Your task to perform on an android device: turn on airplane mode Image 0: 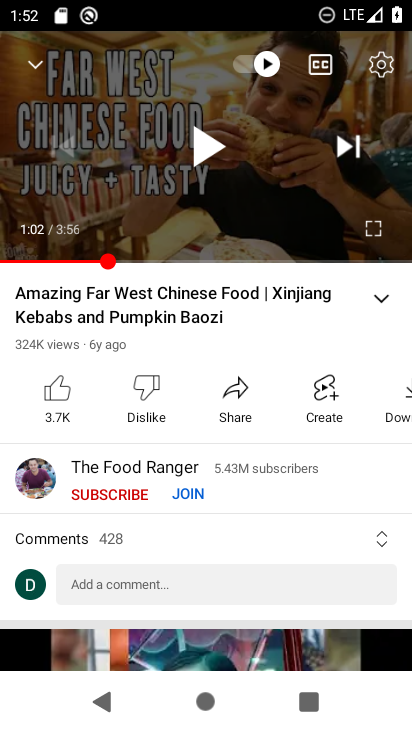
Step 0: press home button
Your task to perform on an android device: turn on airplane mode Image 1: 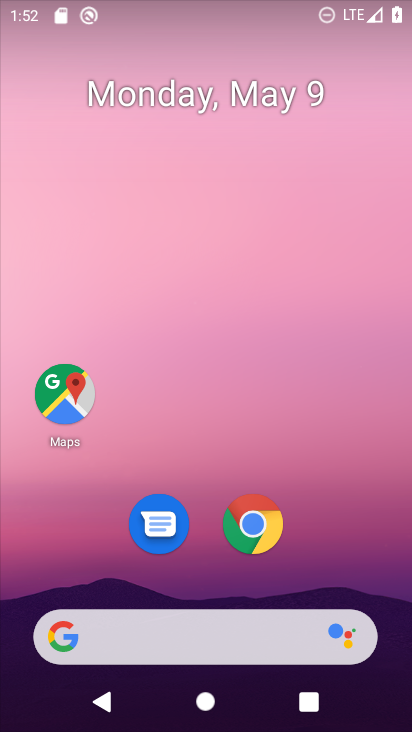
Step 1: drag from (303, 498) to (213, 0)
Your task to perform on an android device: turn on airplane mode Image 2: 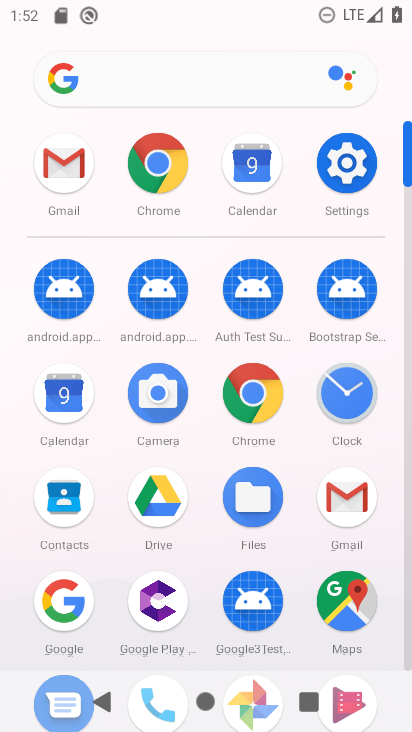
Step 2: click (343, 158)
Your task to perform on an android device: turn on airplane mode Image 3: 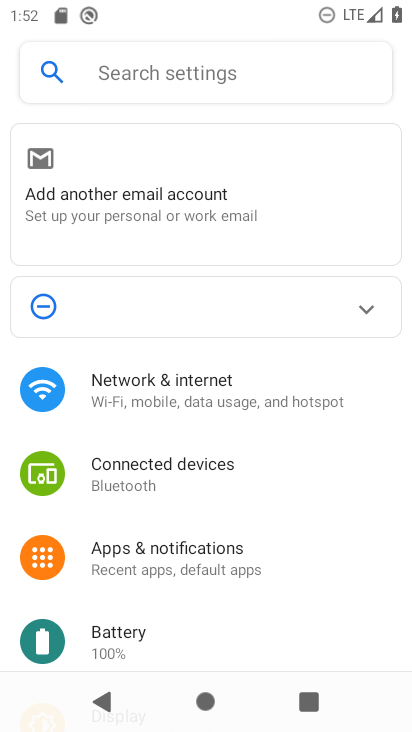
Step 3: click (253, 391)
Your task to perform on an android device: turn on airplane mode Image 4: 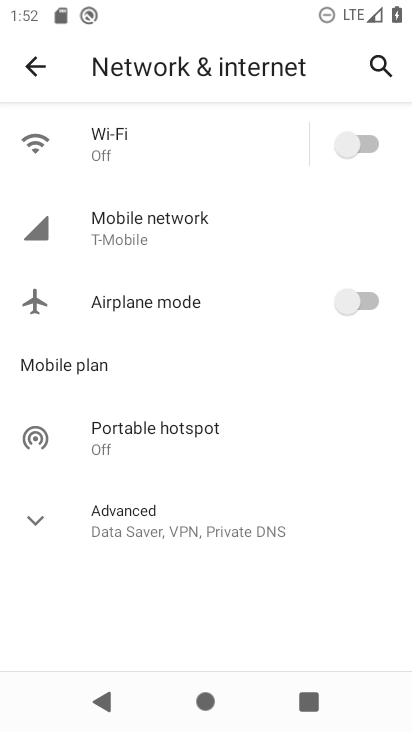
Step 4: click (360, 291)
Your task to perform on an android device: turn on airplane mode Image 5: 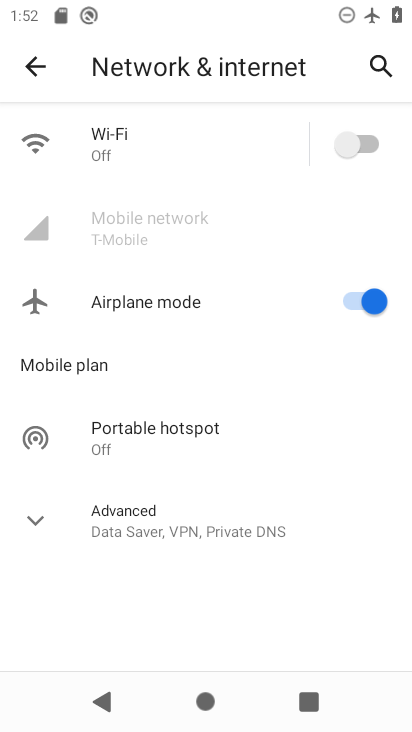
Step 5: task complete